Your task to perform on an android device: Go to Reddit.com Image 0: 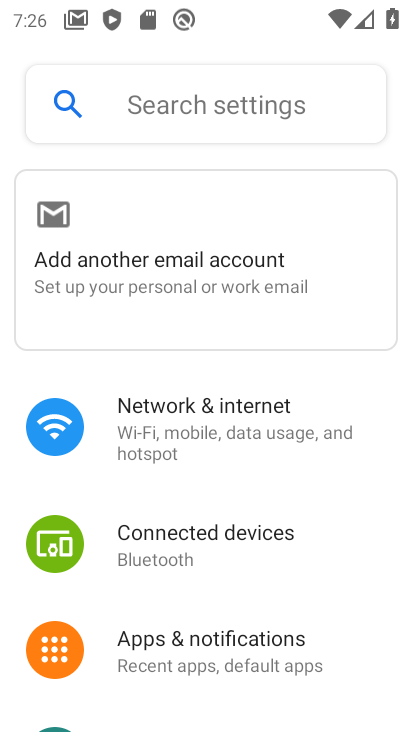
Step 0: press home button
Your task to perform on an android device: Go to Reddit.com Image 1: 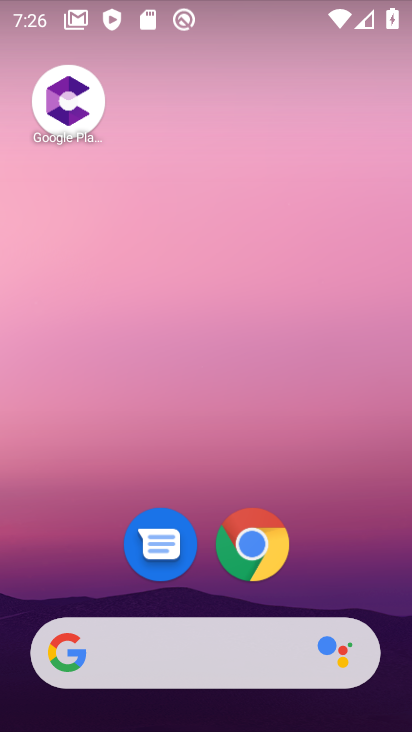
Step 1: drag from (337, 383) to (289, 18)
Your task to perform on an android device: Go to Reddit.com Image 2: 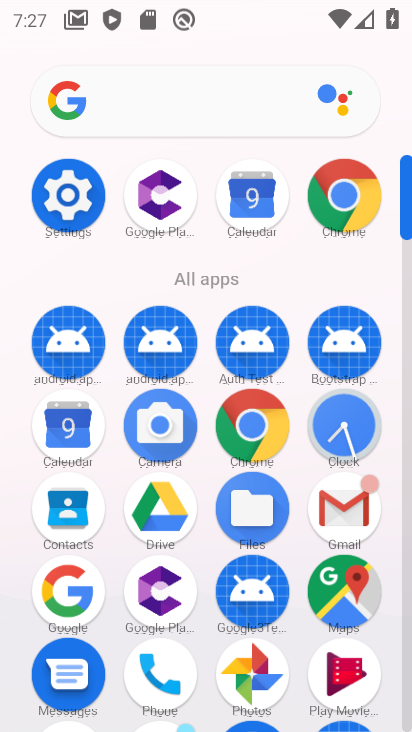
Step 2: click (347, 205)
Your task to perform on an android device: Go to Reddit.com Image 3: 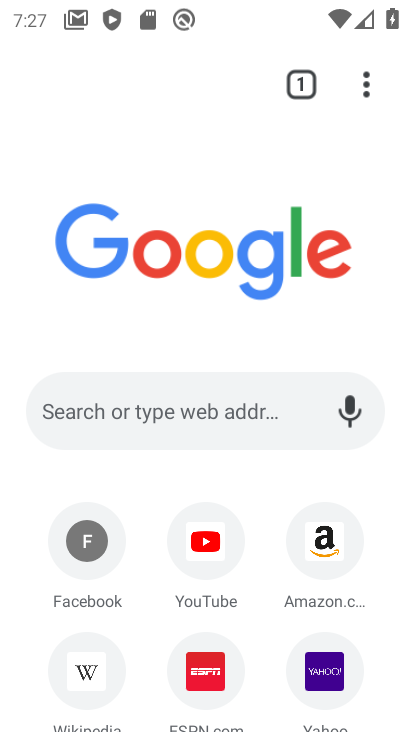
Step 3: drag from (365, 570) to (343, 134)
Your task to perform on an android device: Go to Reddit.com Image 4: 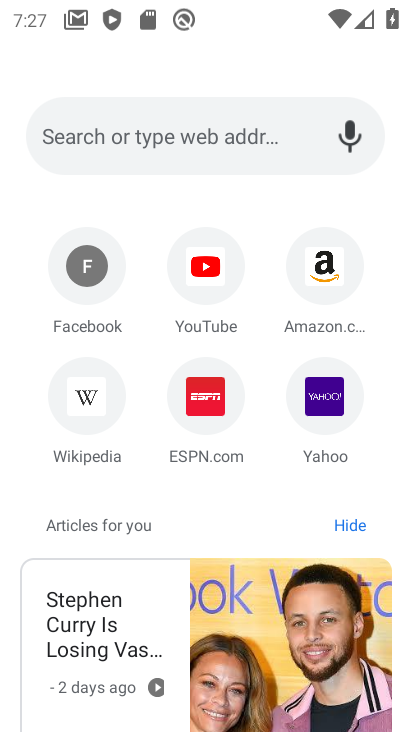
Step 4: click (155, 144)
Your task to perform on an android device: Go to Reddit.com Image 5: 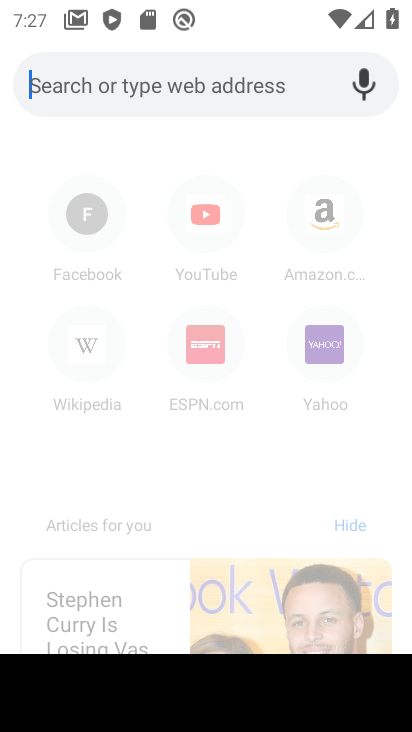
Step 5: type "reddit.com"
Your task to perform on an android device: Go to Reddit.com Image 6: 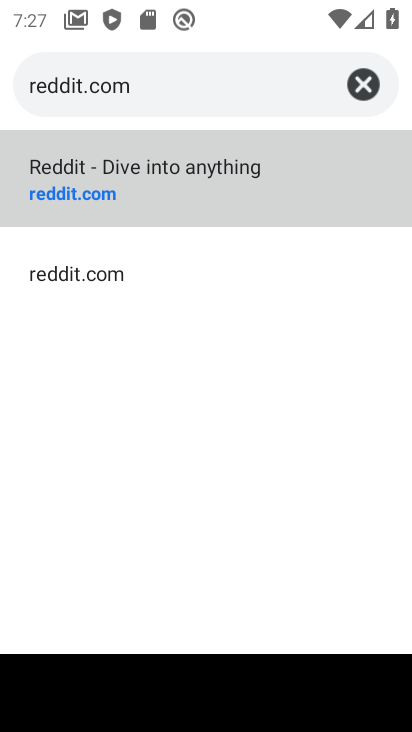
Step 6: click (57, 175)
Your task to perform on an android device: Go to Reddit.com Image 7: 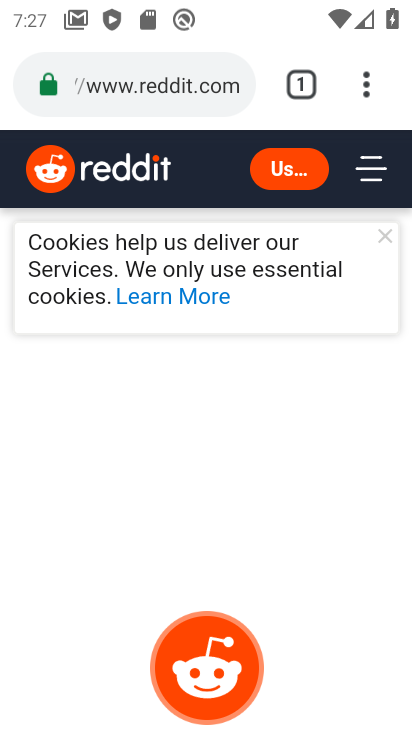
Step 7: task complete